Your task to perform on an android device: refresh tabs in the chrome app Image 0: 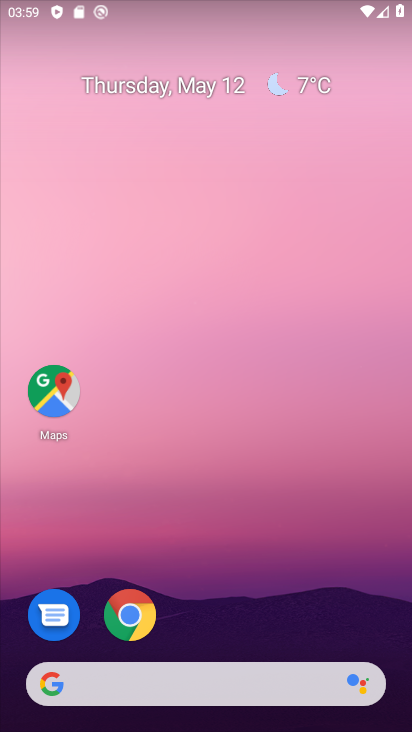
Step 0: click (132, 607)
Your task to perform on an android device: refresh tabs in the chrome app Image 1: 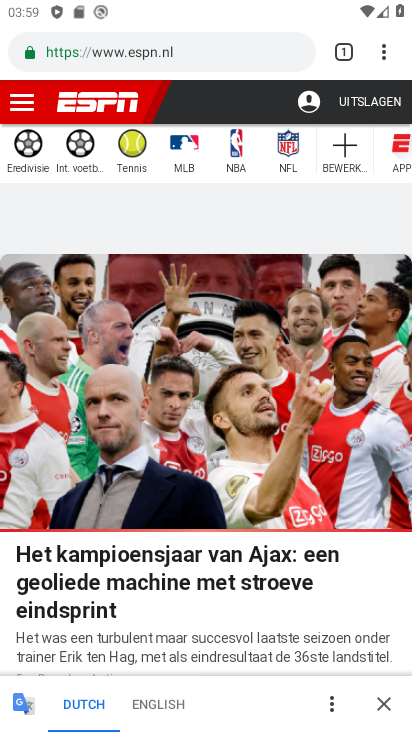
Step 1: click (390, 50)
Your task to perform on an android device: refresh tabs in the chrome app Image 2: 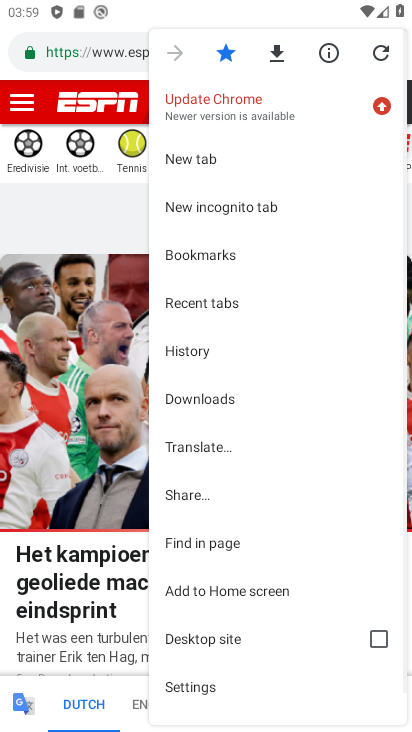
Step 2: click (378, 50)
Your task to perform on an android device: refresh tabs in the chrome app Image 3: 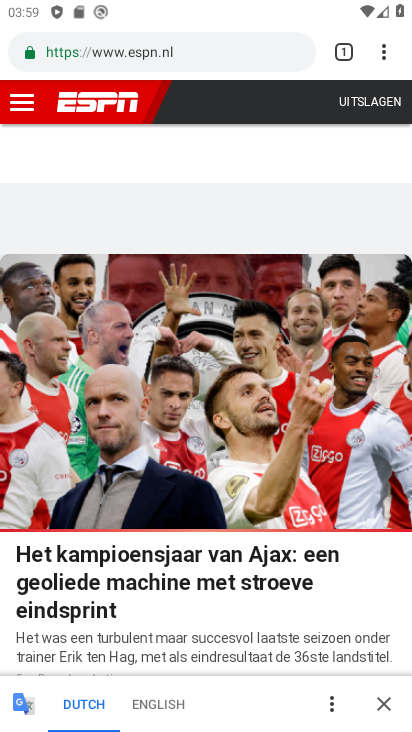
Step 3: task complete